Your task to perform on an android device: remove spam from my inbox in the gmail app Image 0: 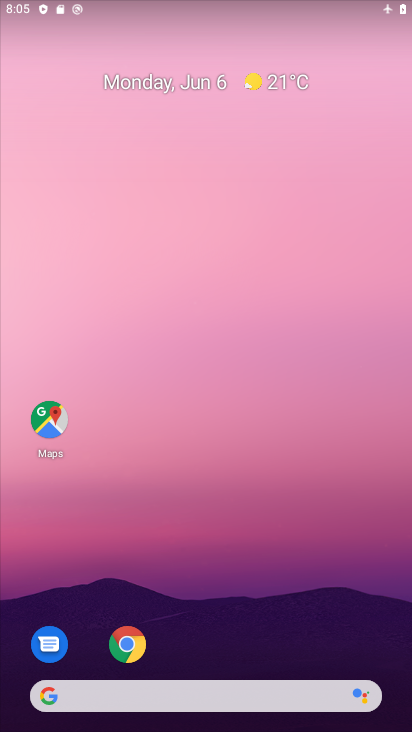
Step 0: drag from (222, 656) to (218, 162)
Your task to perform on an android device: remove spam from my inbox in the gmail app Image 1: 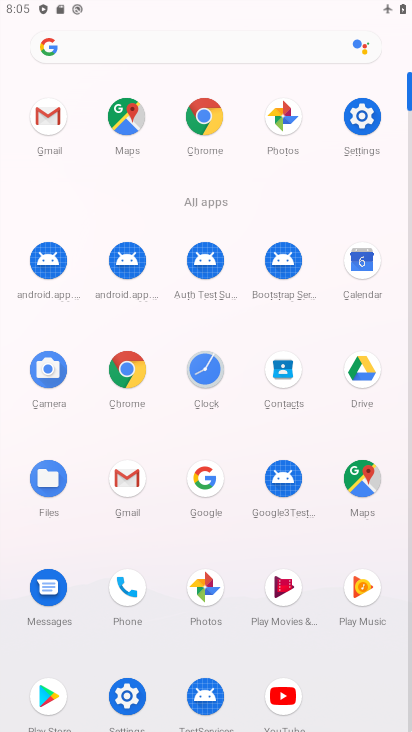
Step 1: click (129, 481)
Your task to perform on an android device: remove spam from my inbox in the gmail app Image 2: 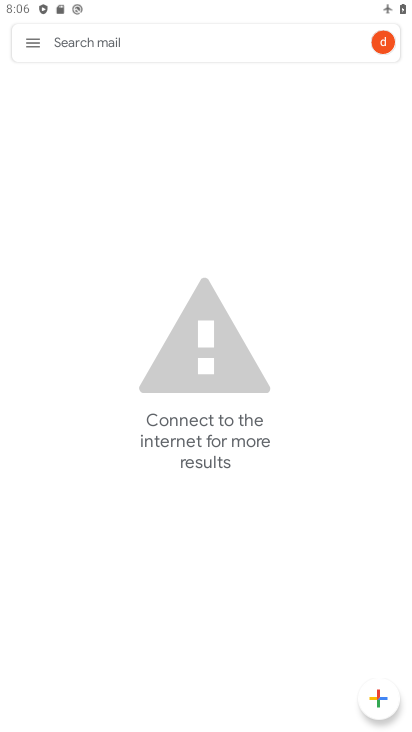
Step 2: click (30, 38)
Your task to perform on an android device: remove spam from my inbox in the gmail app Image 3: 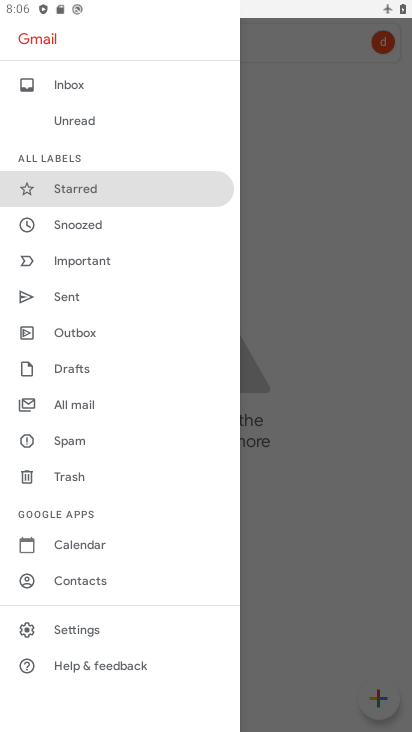
Step 3: click (34, 447)
Your task to perform on an android device: remove spam from my inbox in the gmail app Image 4: 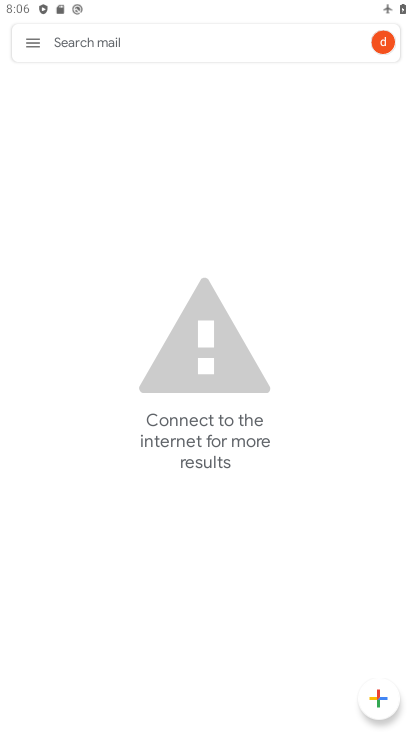
Step 4: task complete